Your task to perform on an android device: check android version Image 0: 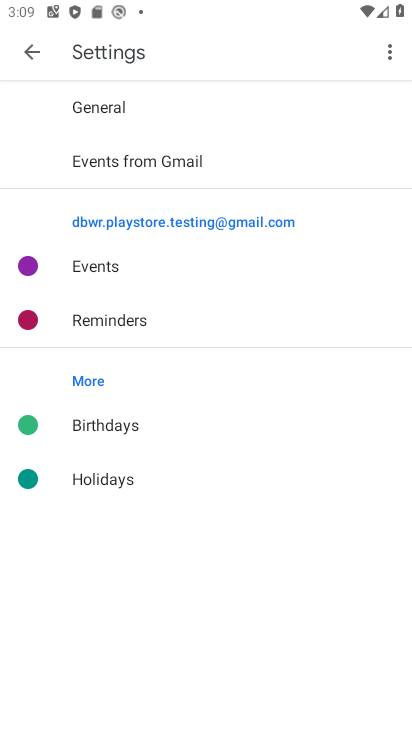
Step 0: press home button
Your task to perform on an android device: check android version Image 1: 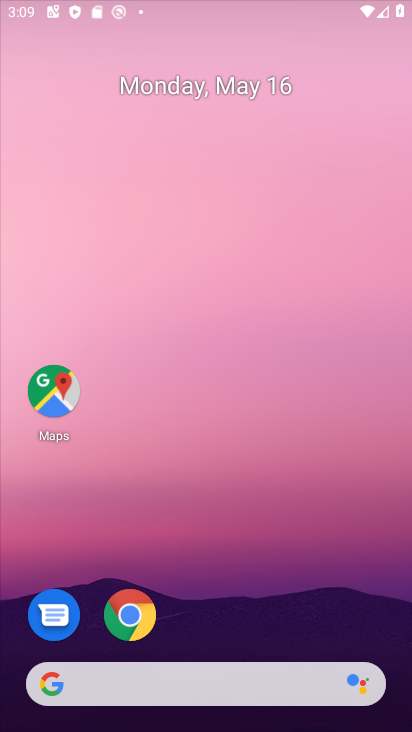
Step 1: drag from (264, 513) to (324, 43)
Your task to perform on an android device: check android version Image 2: 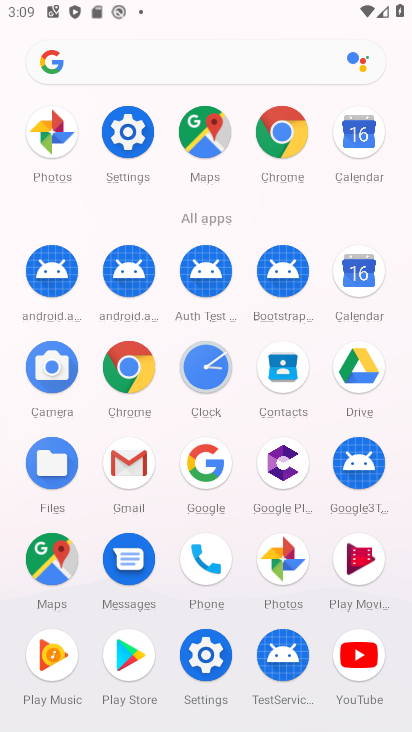
Step 2: click (129, 126)
Your task to perform on an android device: check android version Image 3: 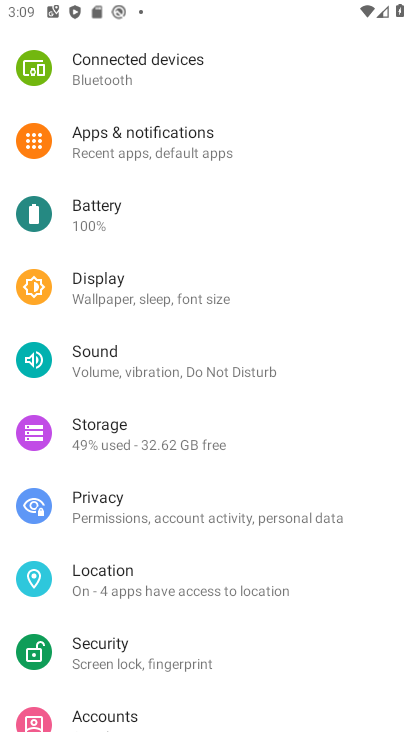
Step 3: drag from (211, 613) to (202, 104)
Your task to perform on an android device: check android version Image 4: 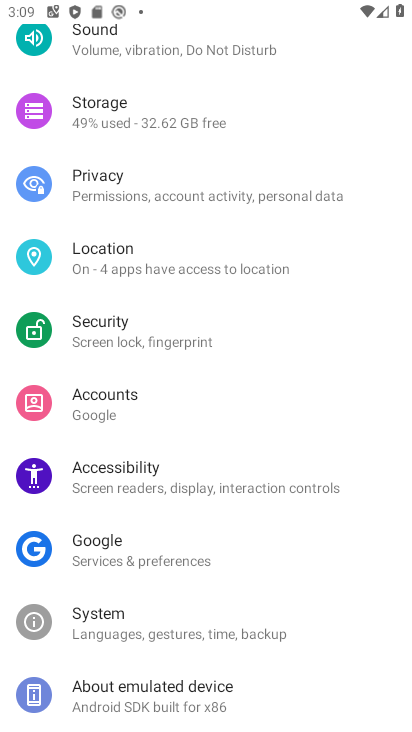
Step 4: click (169, 684)
Your task to perform on an android device: check android version Image 5: 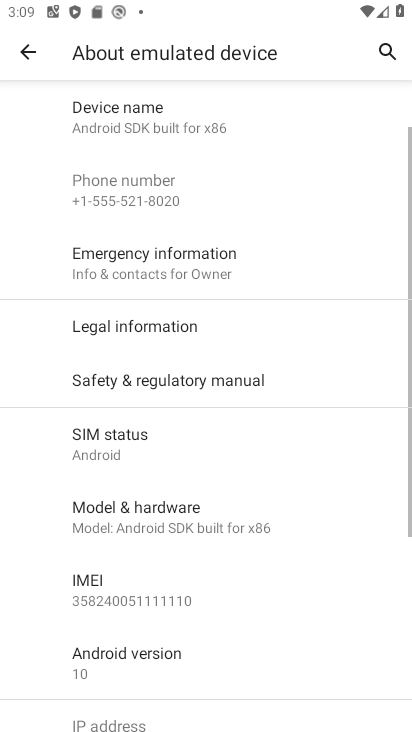
Step 5: click (145, 665)
Your task to perform on an android device: check android version Image 6: 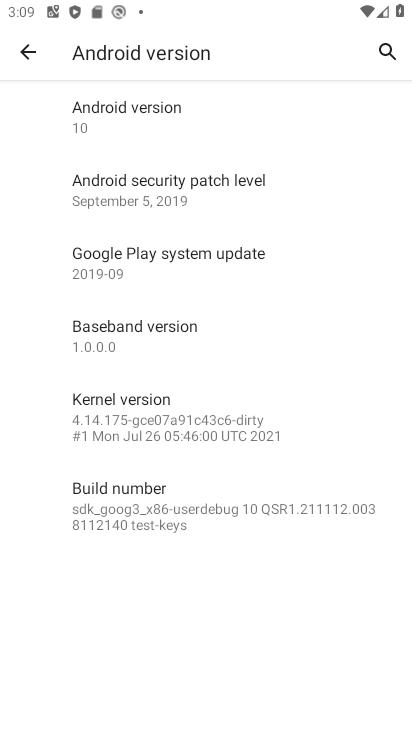
Step 6: task complete